Your task to perform on an android device: Open calendar and show me the first week of next month Image 0: 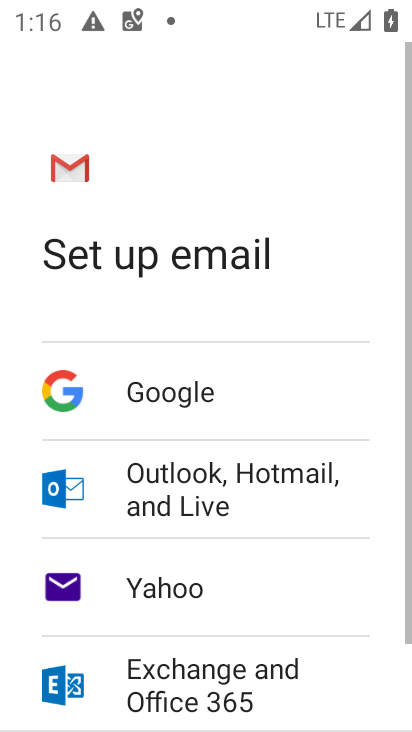
Step 0: press home button
Your task to perform on an android device: Open calendar and show me the first week of next month Image 1: 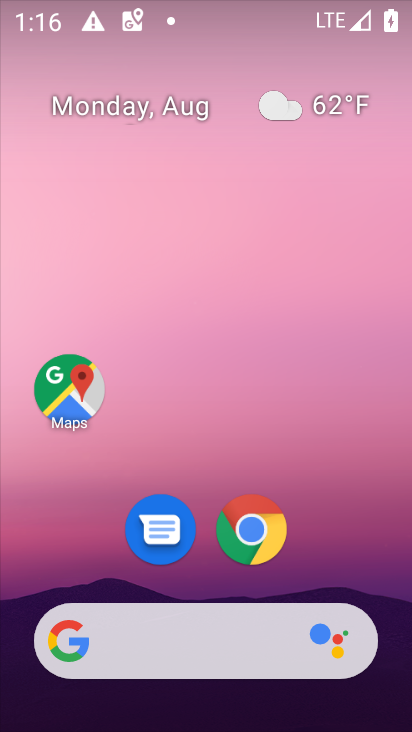
Step 1: drag from (178, 521) to (159, 244)
Your task to perform on an android device: Open calendar and show me the first week of next month Image 2: 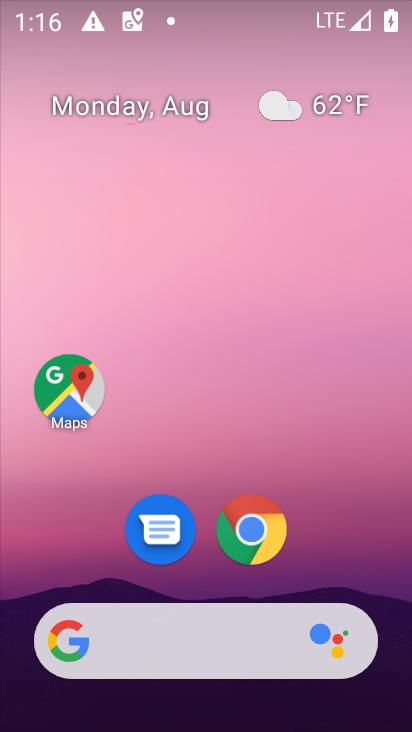
Step 2: drag from (214, 610) to (149, 230)
Your task to perform on an android device: Open calendar and show me the first week of next month Image 3: 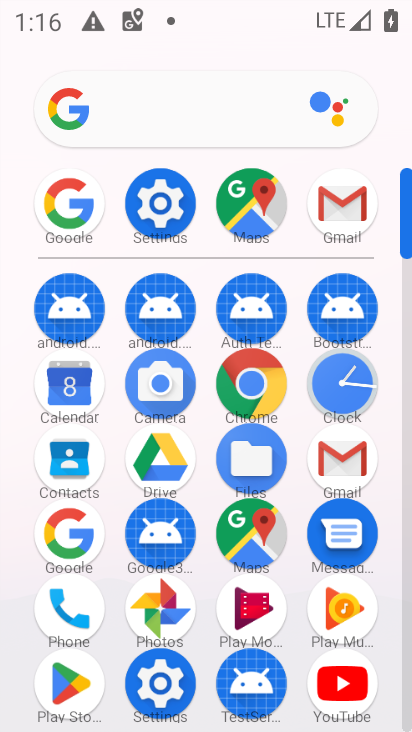
Step 3: click (72, 397)
Your task to perform on an android device: Open calendar and show me the first week of next month Image 4: 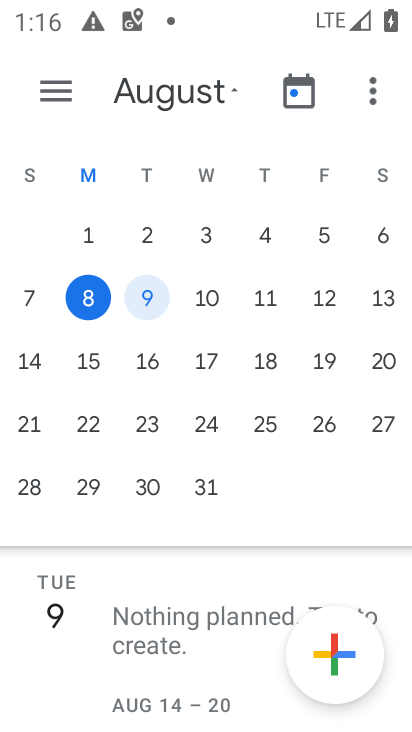
Step 4: drag from (393, 330) to (8, 322)
Your task to perform on an android device: Open calendar and show me the first week of next month Image 5: 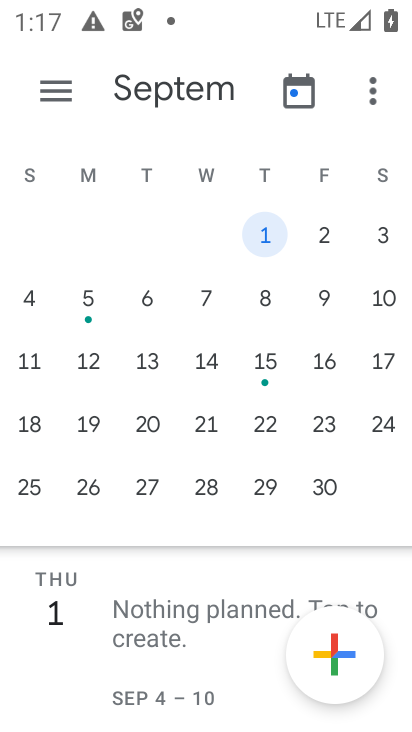
Step 5: click (267, 243)
Your task to perform on an android device: Open calendar and show me the first week of next month Image 6: 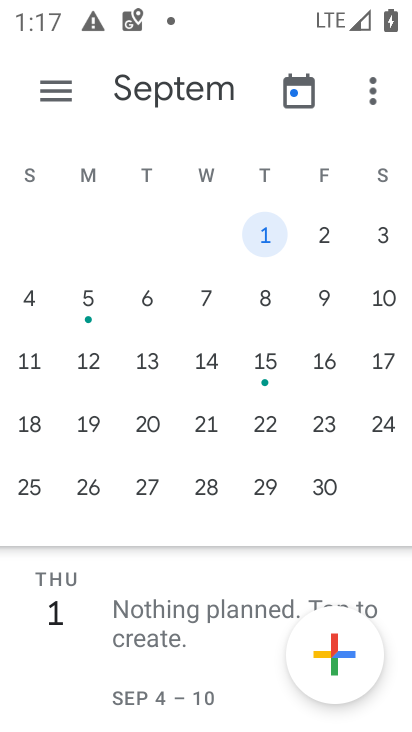
Step 6: task complete